Your task to perform on an android device: Search for Mexican restaurants on Maps Image 0: 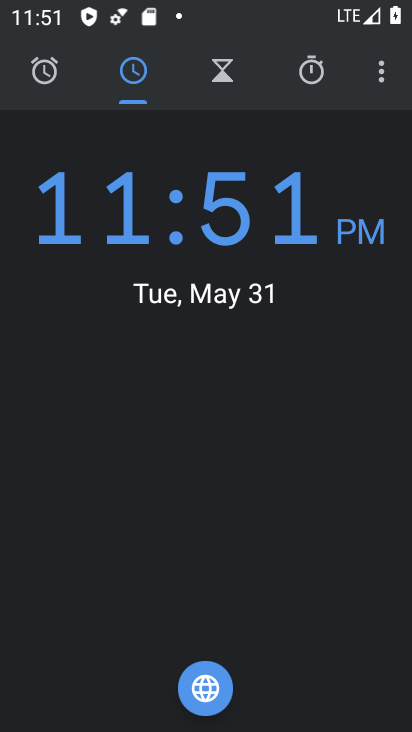
Step 0: press home button
Your task to perform on an android device: Search for Mexican restaurants on Maps Image 1: 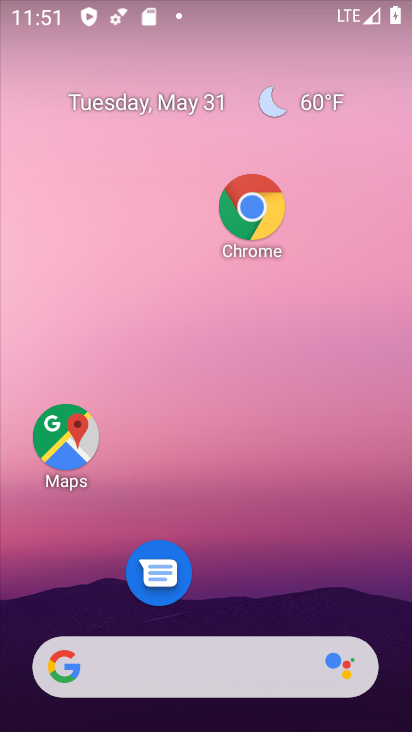
Step 1: click (55, 430)
Your task to perform on an android device: Search for Mexican restaurants on Maps Image 2: 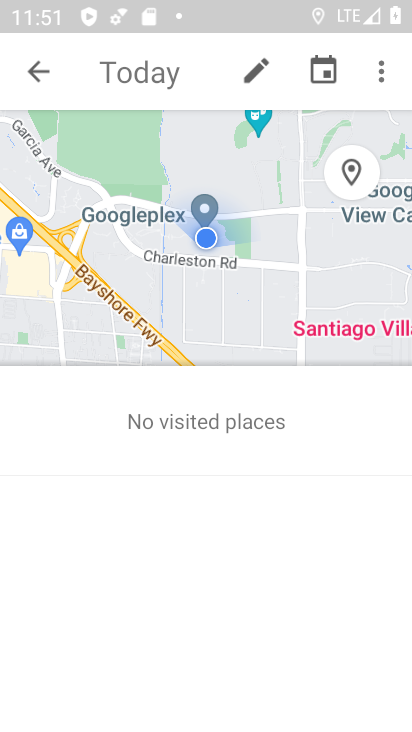
Step 2: click (41, 72)
Your task to perform on an android device: Search for Mexican restaurants on Maps Image 3: 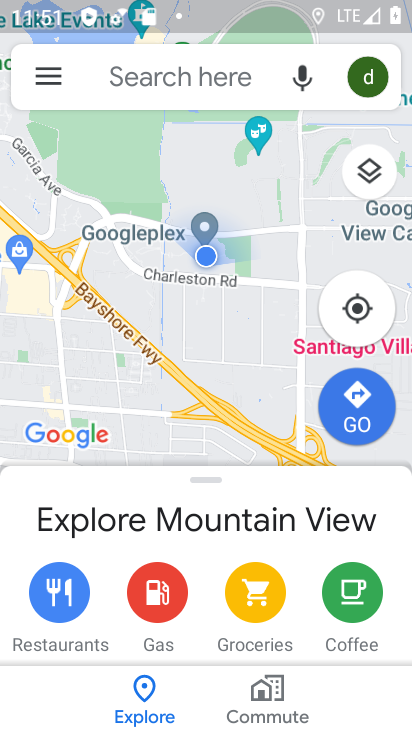
Step 3: click (200, 86)
Your task to perform on an android device: Search for Mexican restaurants on Maps Image 4: 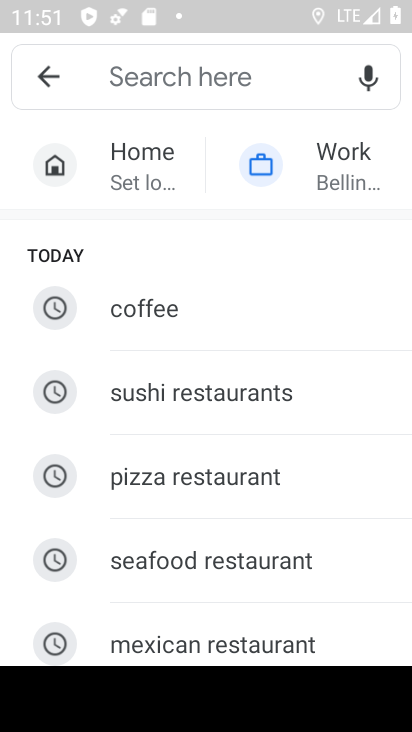
Step 4: click (206, 633)
Your task to perform on an android device: Search for Mexican restaurants on Maps Image 5: 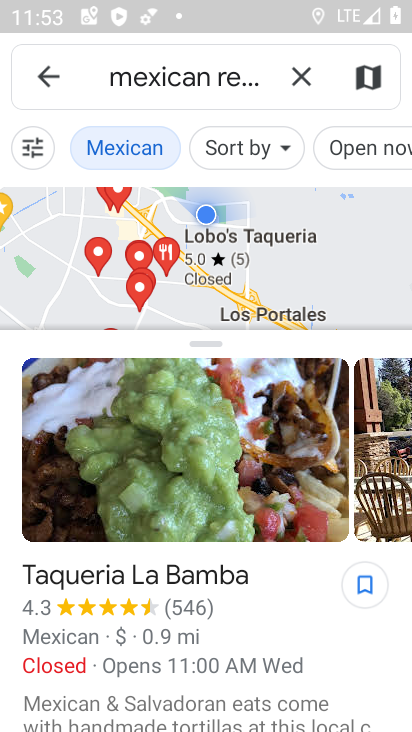
Step 5: task complete